Your task to perform on an android device: turn vacation reply on in the gmail app Image 0: 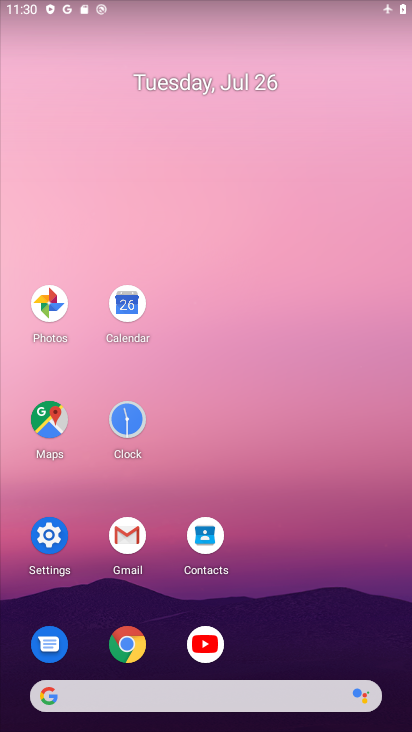
Step 0: click (126, 540)
Your task to perform on an android device: turn vacation reply on in the gmail app Image 1: 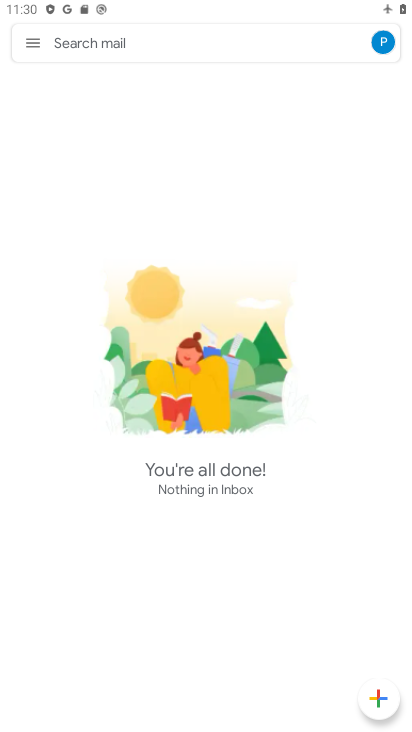
Step 1: click (23, 40)
Your task to perform on an android device: turn vacation reply on in the gmail app Image 2: 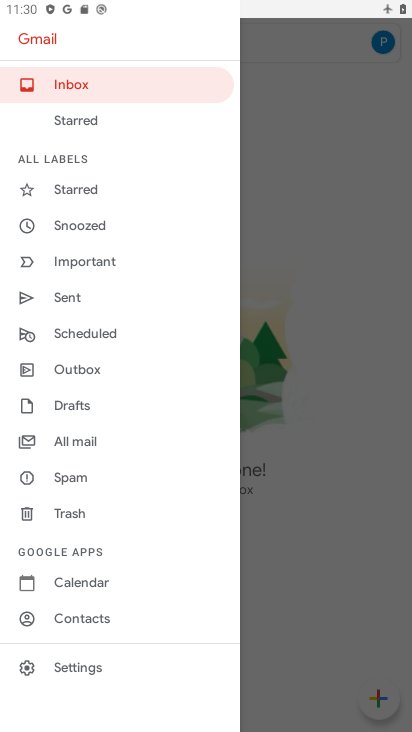
Step 2: click (84, 664)
Your task to perform on an android device: turn vacation reply on in the gmail app Image 3: 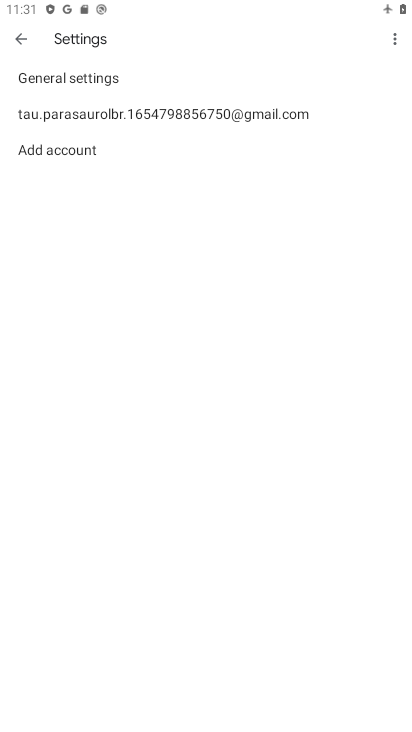
Step 3: click (60, 117)
Your task to perform on an android device: turn vacation reply on in the gmail app Image 4: 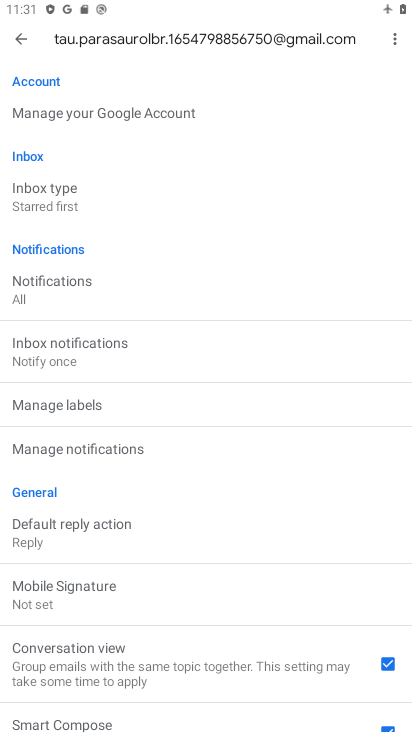
Step 4: drag from (137, 608) to (183, 216)
Your task to perform on an android device: turn vacation reply on in the gmail app Image 5: 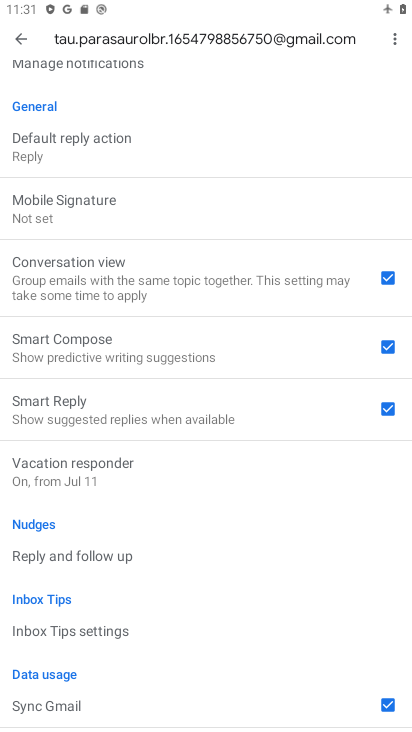
Step 5: click (87, 460)
Your task to perform on an android device: turn vacation reply on in the gmail app Image 6: 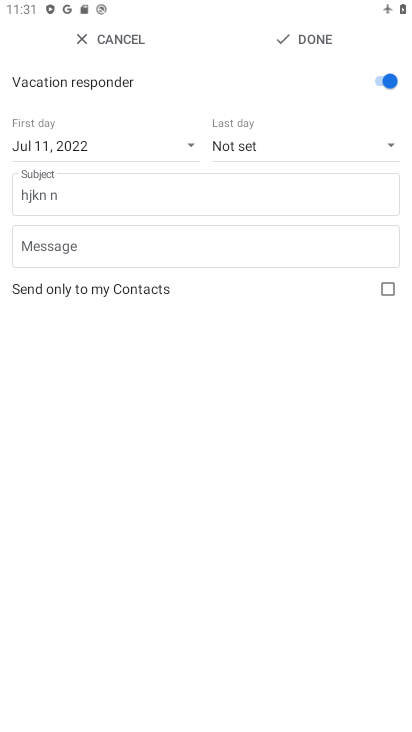
Step 6: task complete